Your task to perform on an android device: turn on notifications settings in the gmail app Image 0: 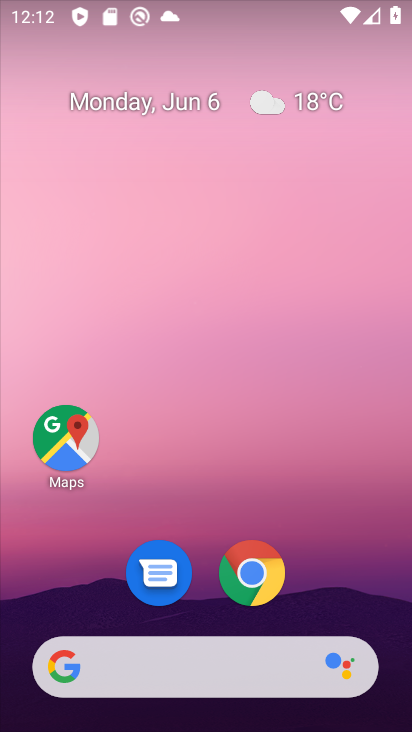
Step 0: drag from (73, 609) to (220, 74)
Your task to perform on an android device: turn on notifications settings in the gmail app Image 1: 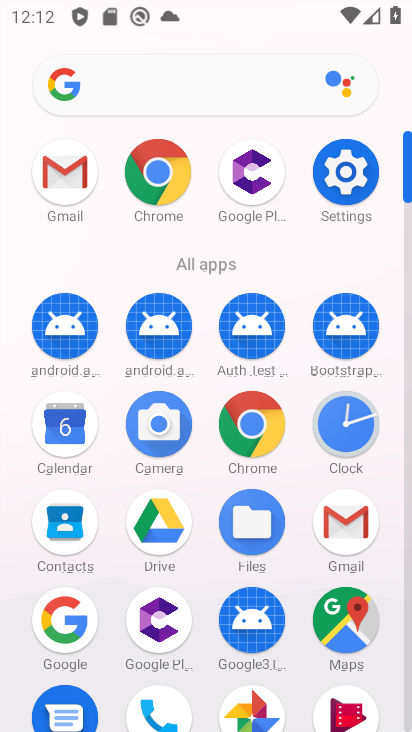
Step 1: drag from (170, 687) to (249, 368)
Your task to perform on an android device: turn on notifications settings in the gmail app Image 2: 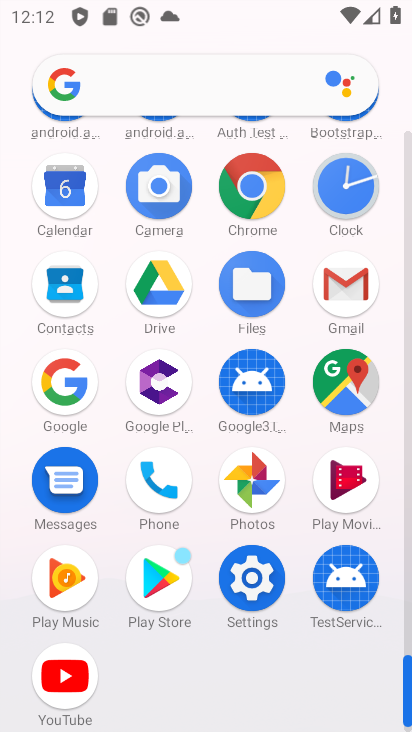
Step 2: click (345, 299)
Your task to perform on an android device: turn on notifications settings in the gmail app Image 3: 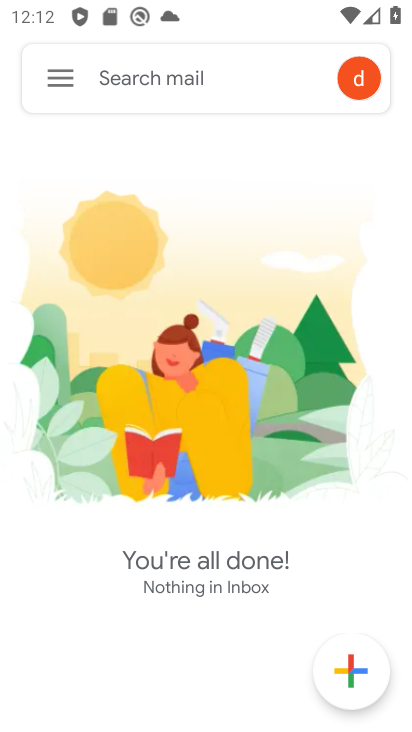
Step 3: click (82, 77)
Your task to perform on an android device: turn on notifications settings in the gmail app Image 4: 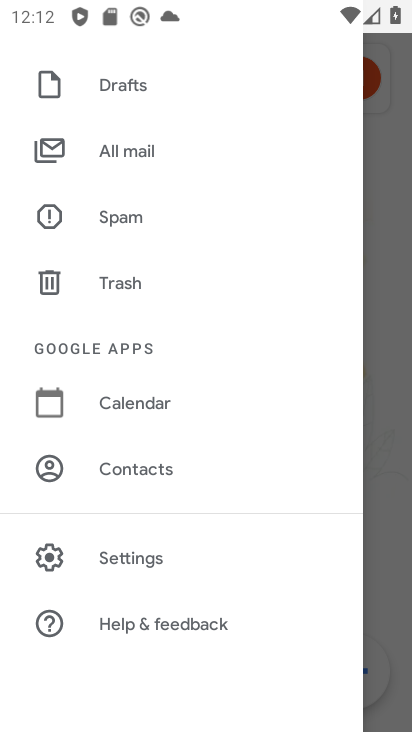
Step 4: click (135, 554)
Your task to perform on an android device: turn on notifications settings in the gmail app Image 5: 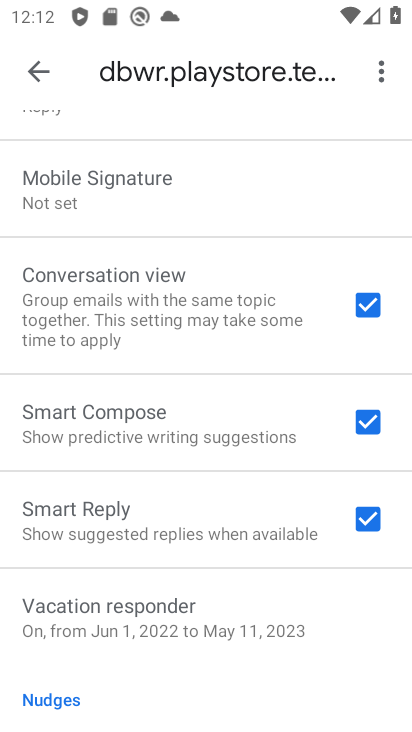
Step 5: drag from (133, 563) to (192, 713)
Your task to perform on an android device: turn on notifications settings in the gmail app Image 6: 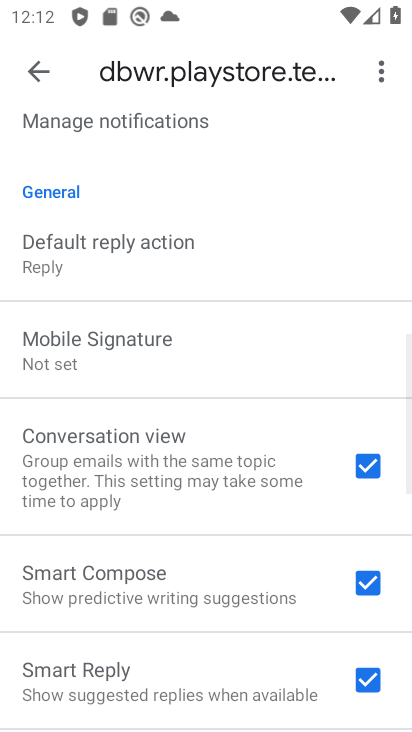
Step 6: click (238, 129)
Your task to perform on an android device: turn on notifications settings in the gmail app Image 7: 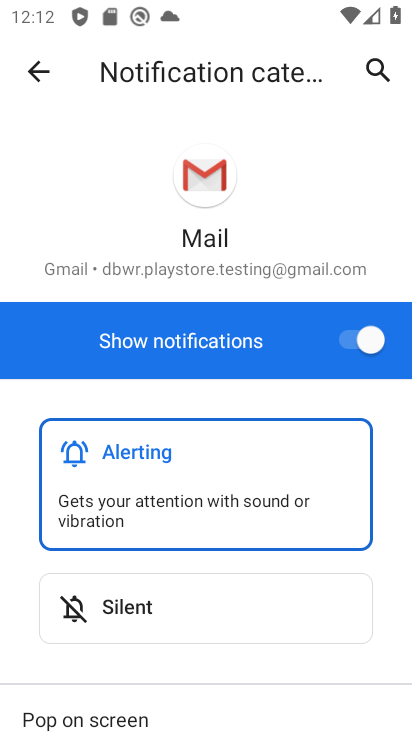
Step 7: task complete